Your task to perform on an android device: Go to battery settings Image 0: 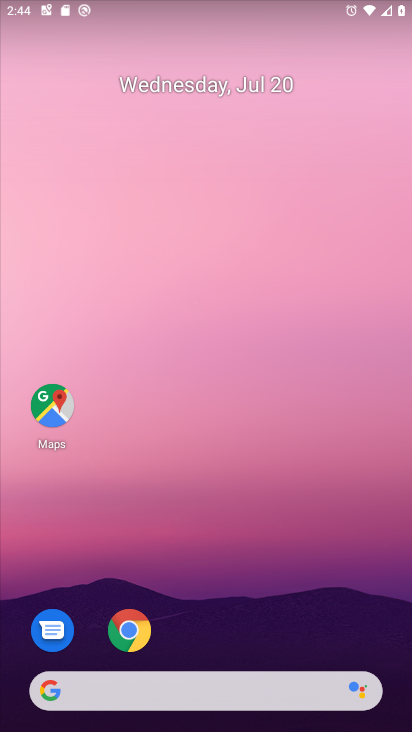
Step 0: press home button
Your task to perform on an android device: Go to battery settings Image 1: 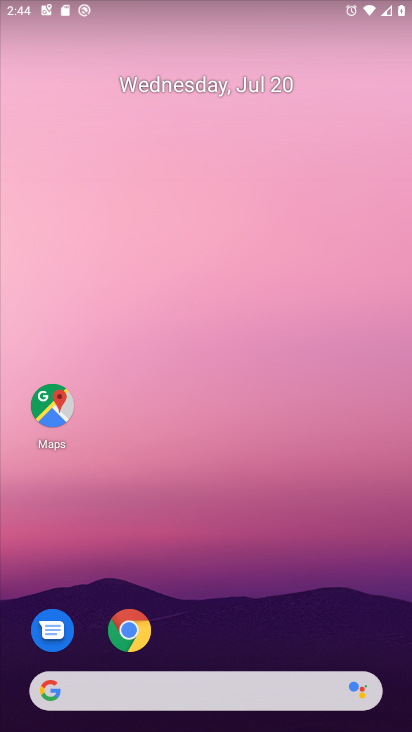
Step 1: drag from (230, 635) to (252, 149)
Your task to perform on an android device: Go to battery settings Image 2: 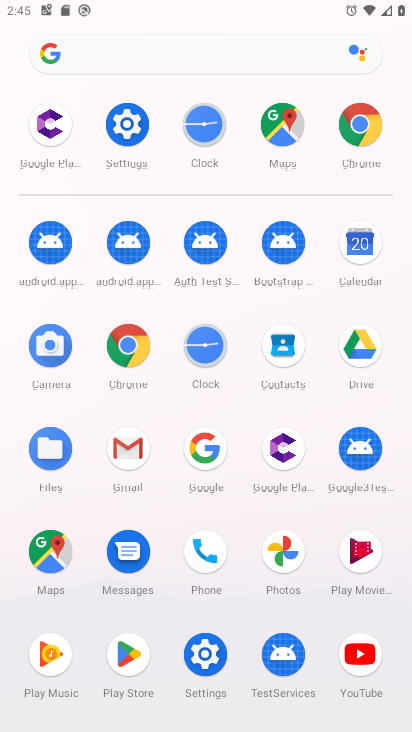
Step 2: drag from (213, 554) to (227, 347)
Your task to perform on an android device: Go to battery settings Image 3: 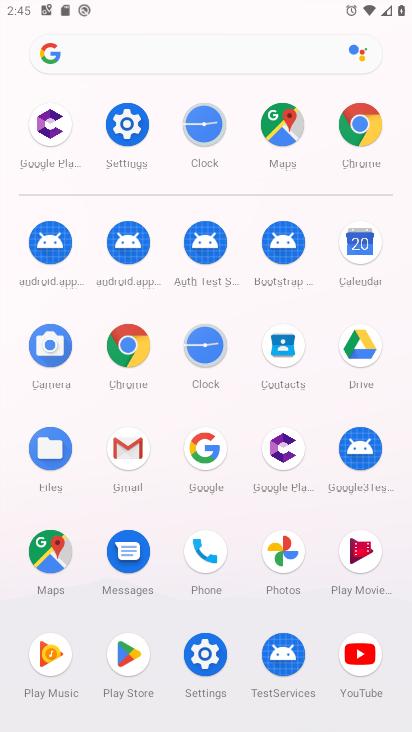
Step 3: click (202, 676)
Your task to perform on an android device: Go to battery settings Image 4: 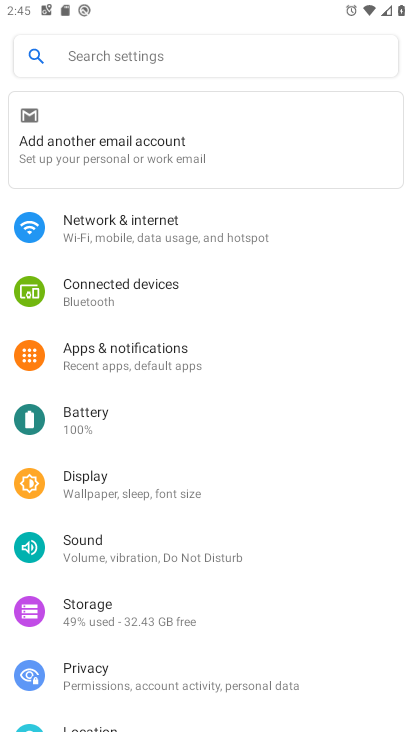
Step 4: click (106, 426)
Your task to perform on an android device: Go to battery settings Image 5: 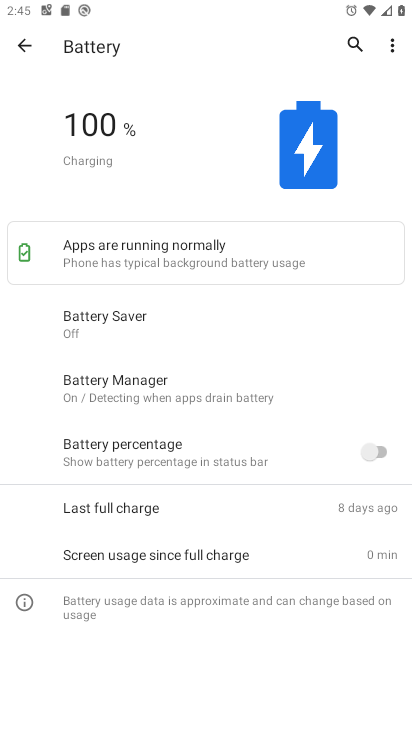
Step 5: task complete